Your task to perform on an android device: Search for "logitech g910" on costco.com, select the first entry, add it to the cart, then select checkout. Image 0: 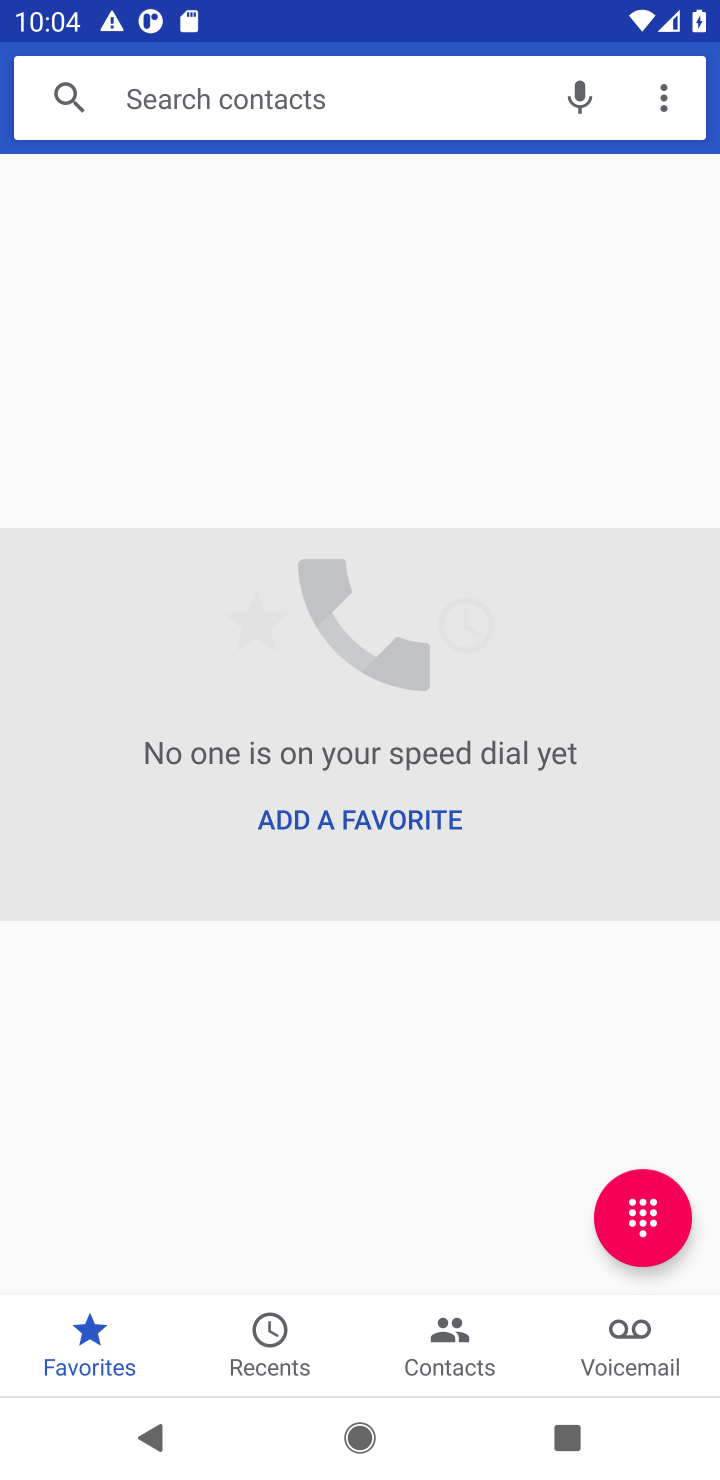
Step 0: press home button
Your task to perform on an android device: Search for "logitech g910" on costco.com, select the first entry, add it to the cart, then select checkout. Image 1: 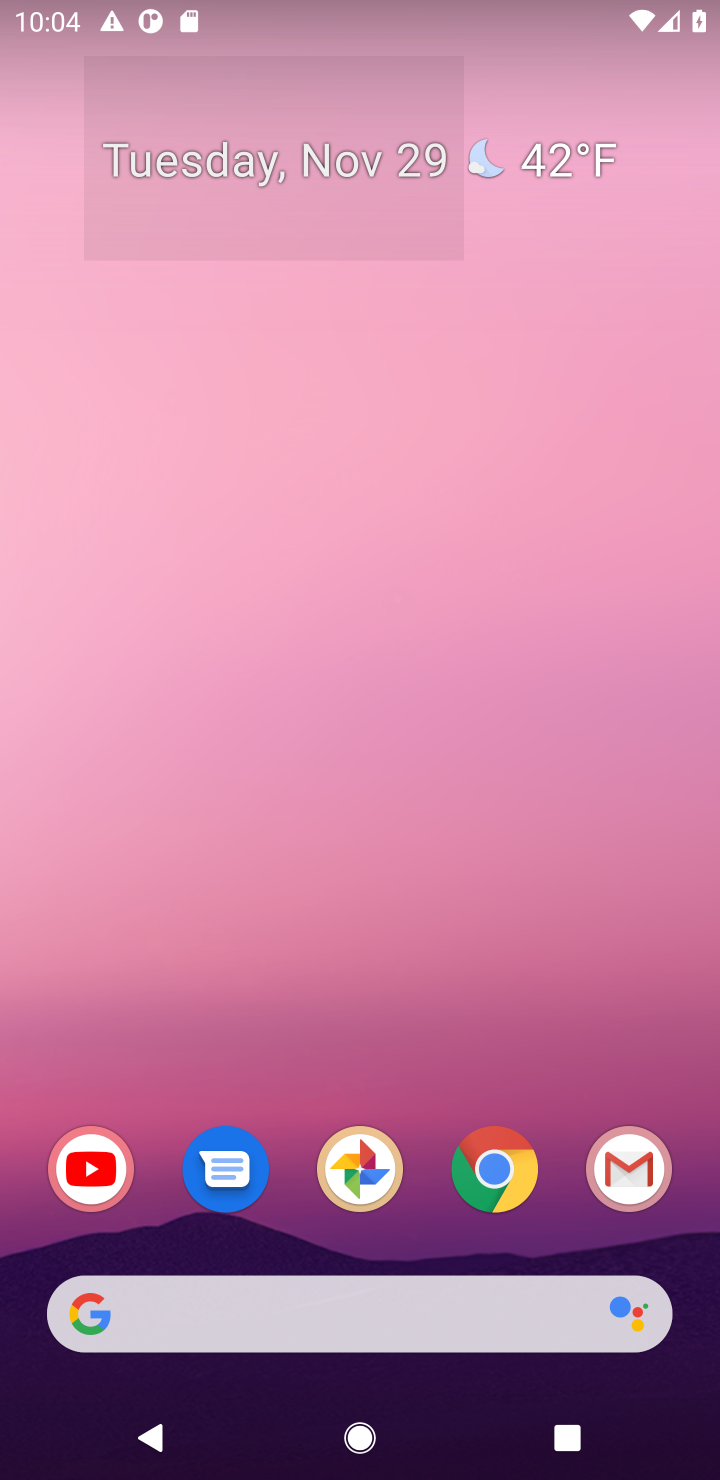
Step 1: click (282, 1323)
Your task to perform on an android device: Search for "logitech g910" on costco.com, select the first entry, add it to the cart, then select checkout. Image 2: 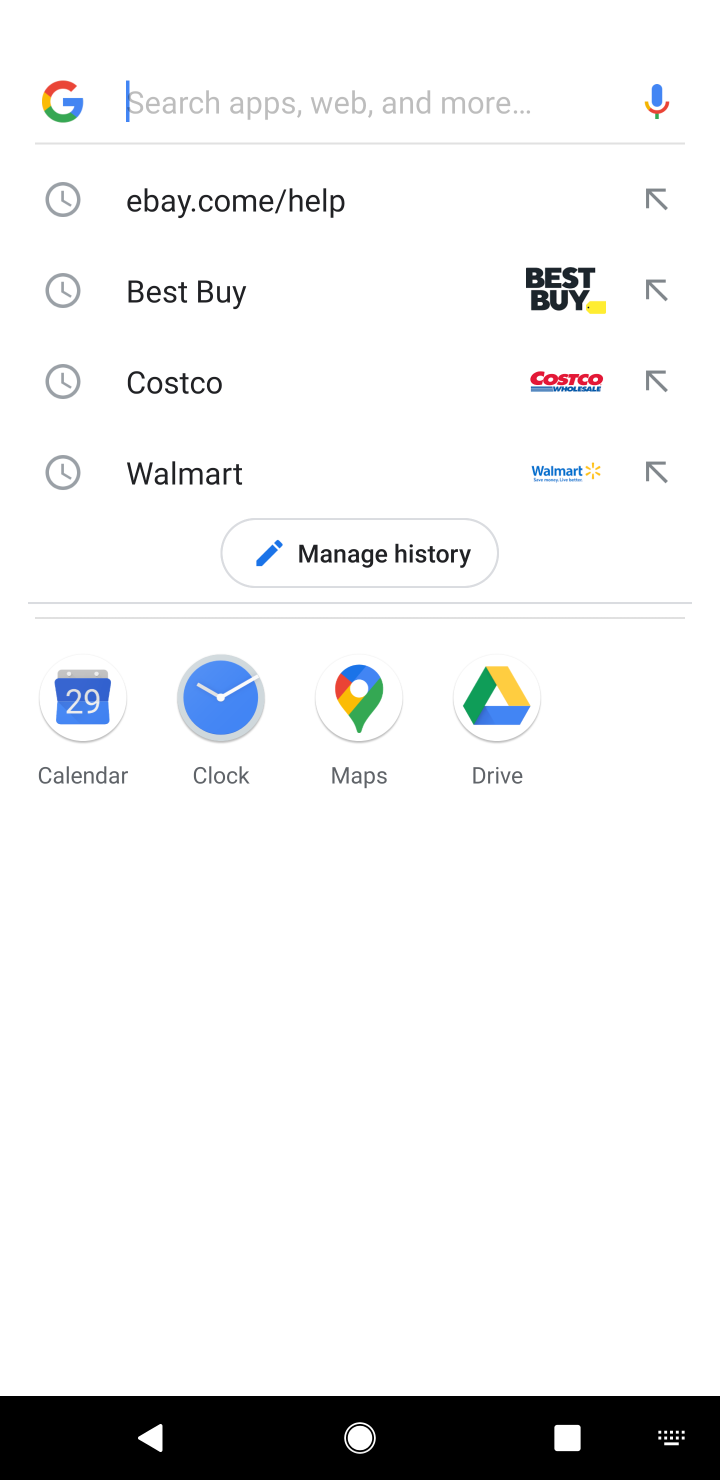
Step 2: type "costco.com"
Your task to perform on an android device: Search for "logitech g910" on costco.com, select the first entry, add it to the cart, then select checkout. Image 3: 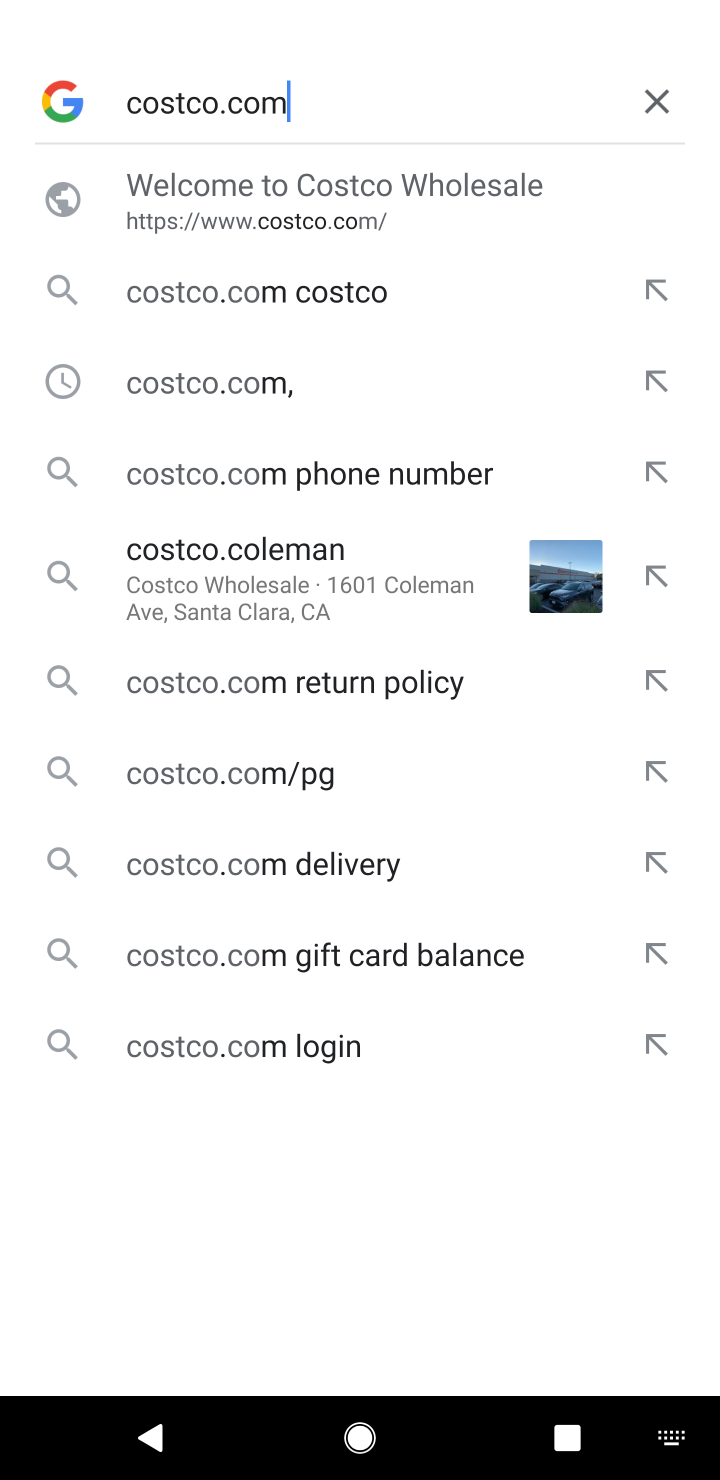
Step 3: click (284, 195)
Your task to perform on an android device: Search for "logitech g910" on costco.com, select the first entry, add it to the cart, then select checkout. Image 4: 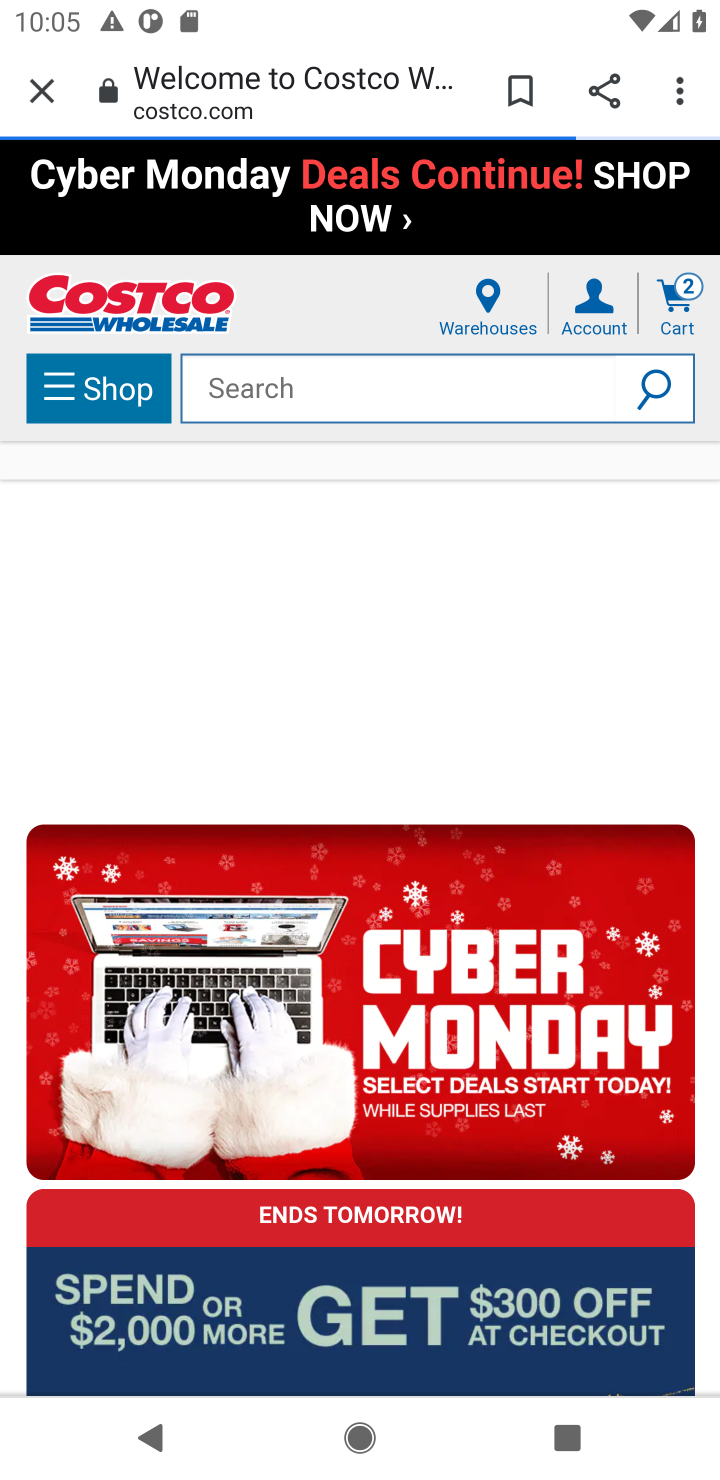
Step 4: click (272, 383)
Your task to perform on an android device: Search for "logitech g910" on costco.com, select the first entry, add it to the cart, then select checkout. Image 5: 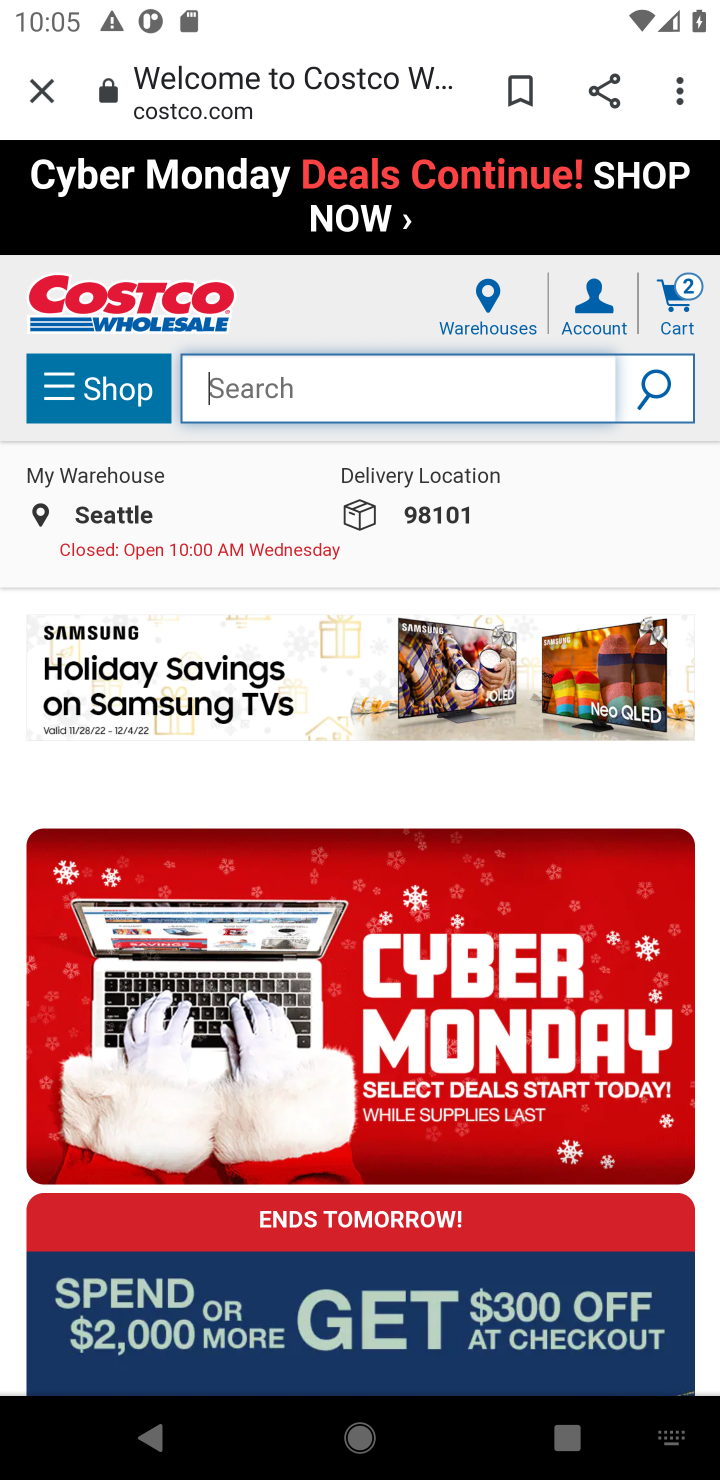
Step 5: type "logitech g910"
Your task to perform on an android device: Search for "logitech g910" on costco.com, select the first entry, add it to the cart, then select checkout. Image 6: 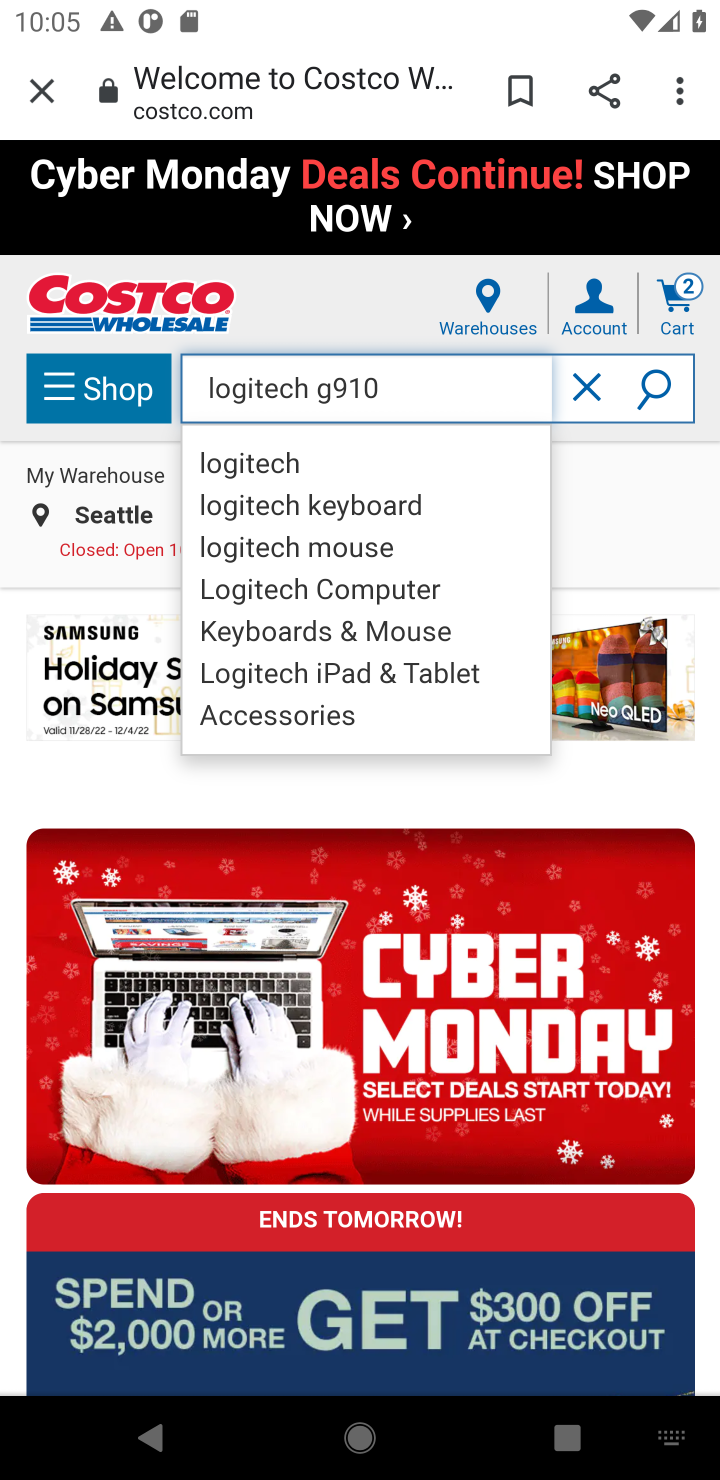
Step 6: click (637, 401)
Your task to perform on an android device: Search for "logitech g910" on costco.com, select the first entry, add it to the cart, then select checkout. Image 7: 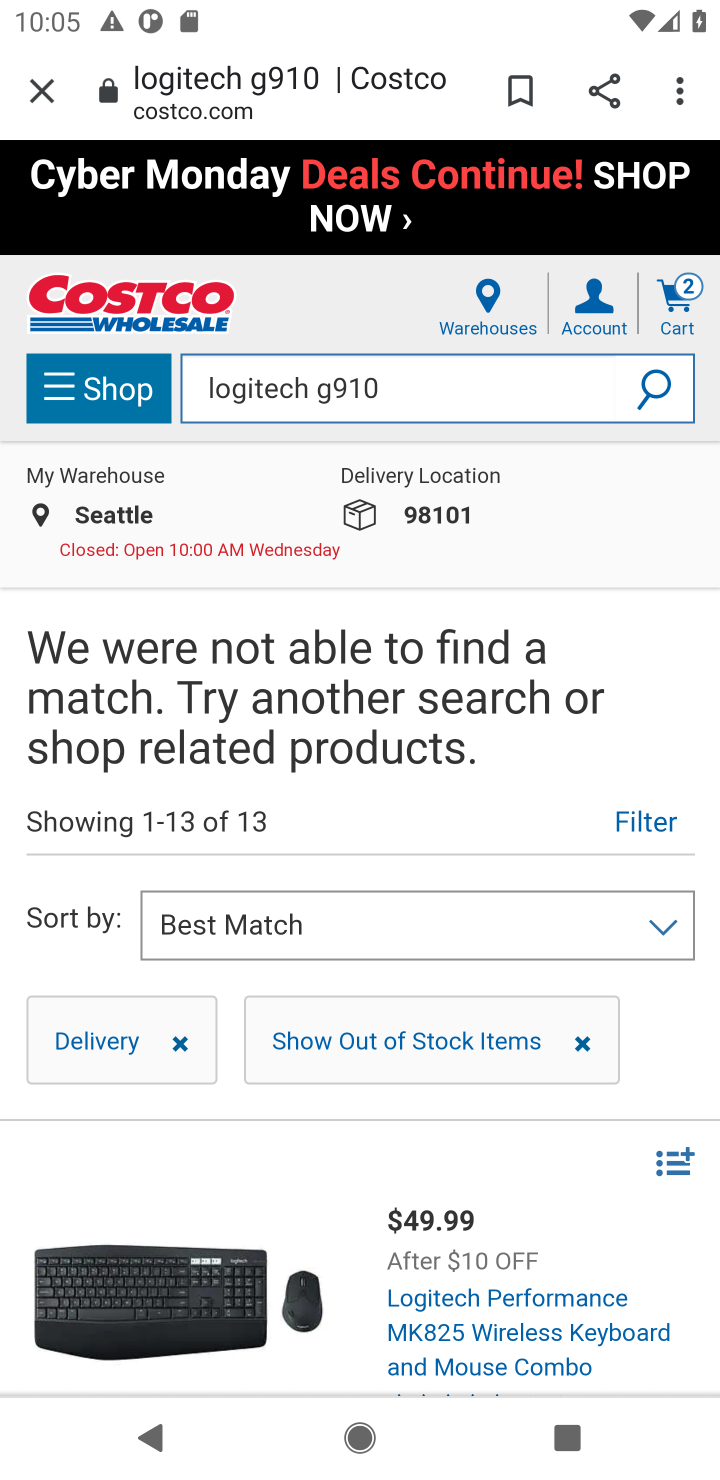
Step 7: click (432, 1267)
Your task to perform on an android device: Search for "logitech g910" on costco.com, select the first entry, add it to the cart, then select checkout. Image 8: 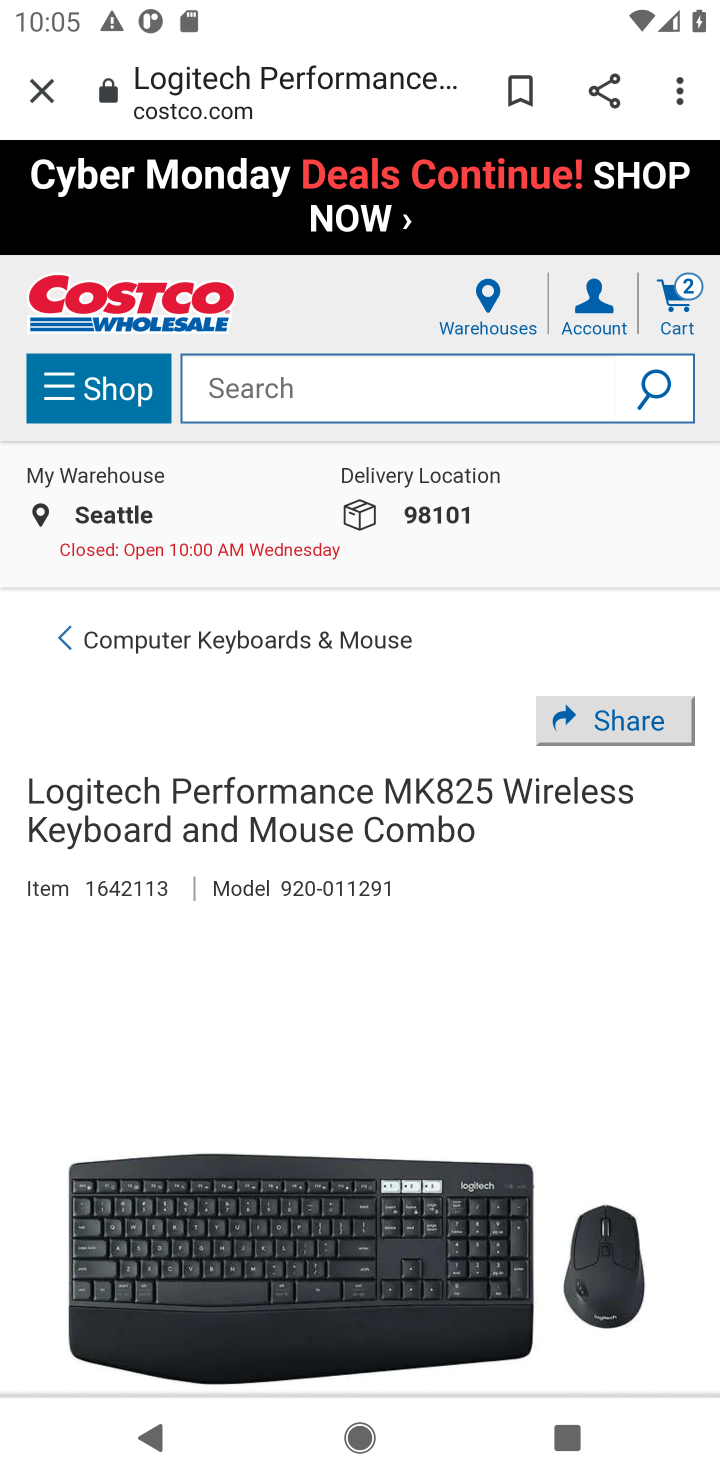
Step 8: drag from (271, 1133) to (195, 477)
Your task to perform on an android device: Search for "logitech g910" on costco.com, select the first entry, add it to the cart, then select checkout. Image 9: 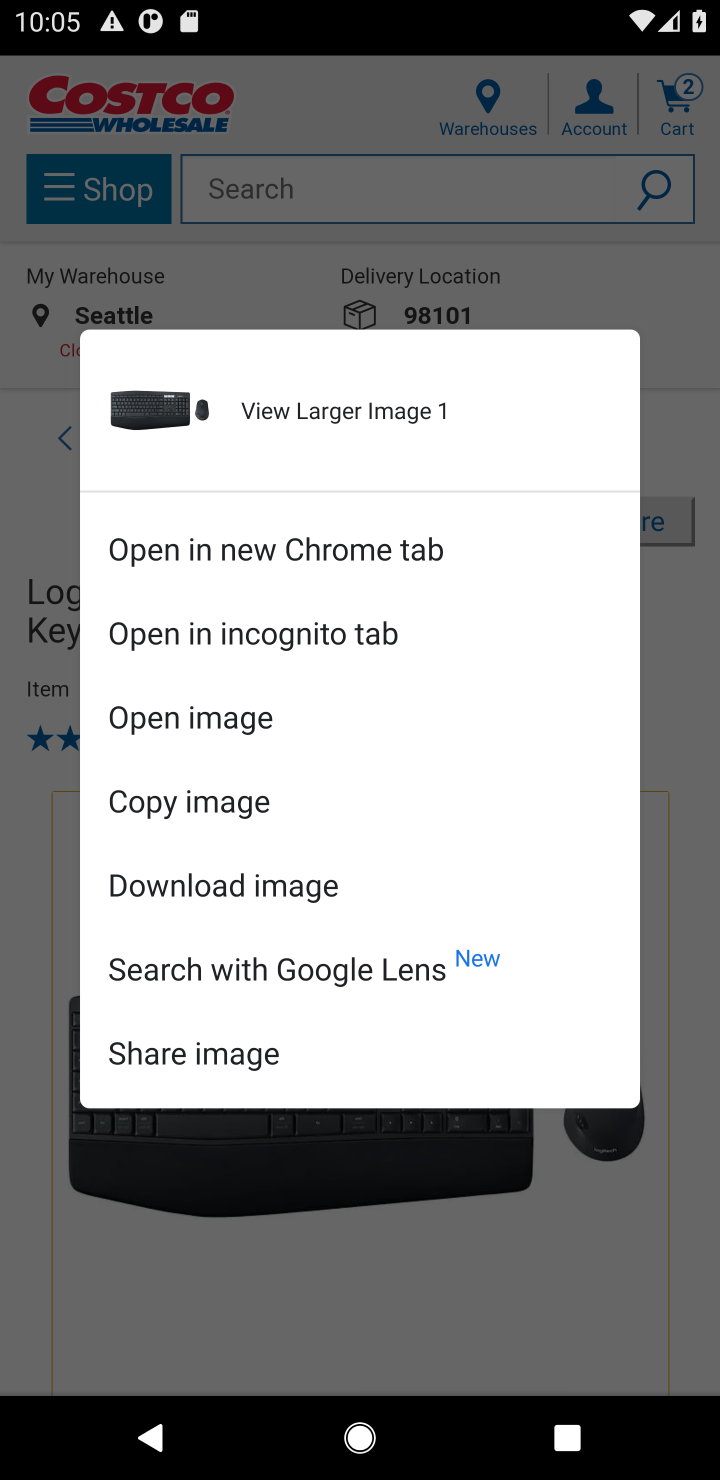
Step 9: click (105, 1260)
Your task to perform on an android device: Search for "logitech g910" on costco.com, select the first entry, add it to the cart, then select checkout. Image 10: 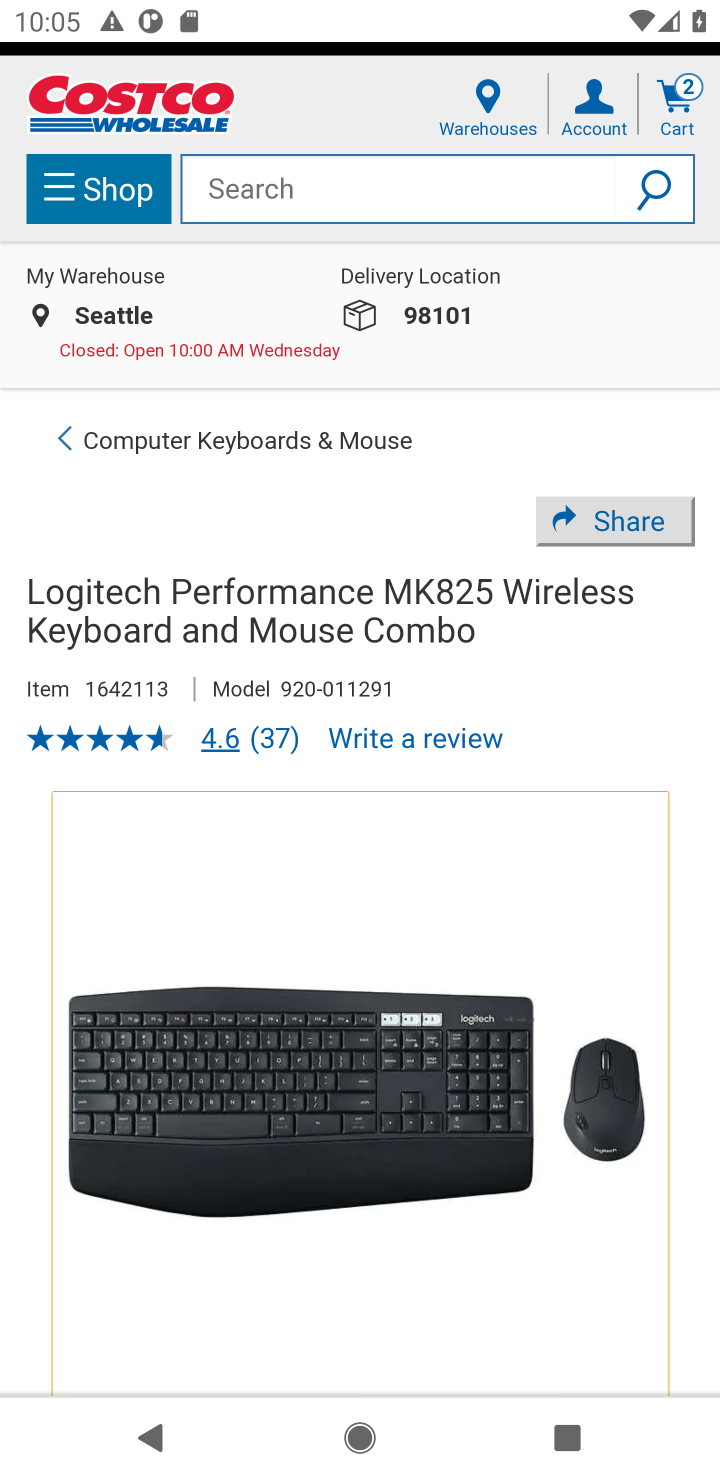
Step 10: drag from (269, 1233) to (265, 681)
Your task to perform on an android device: Search for "logitech g910" on costco.com, select the first entry, add it to the cart, then select checkout. Image 11: 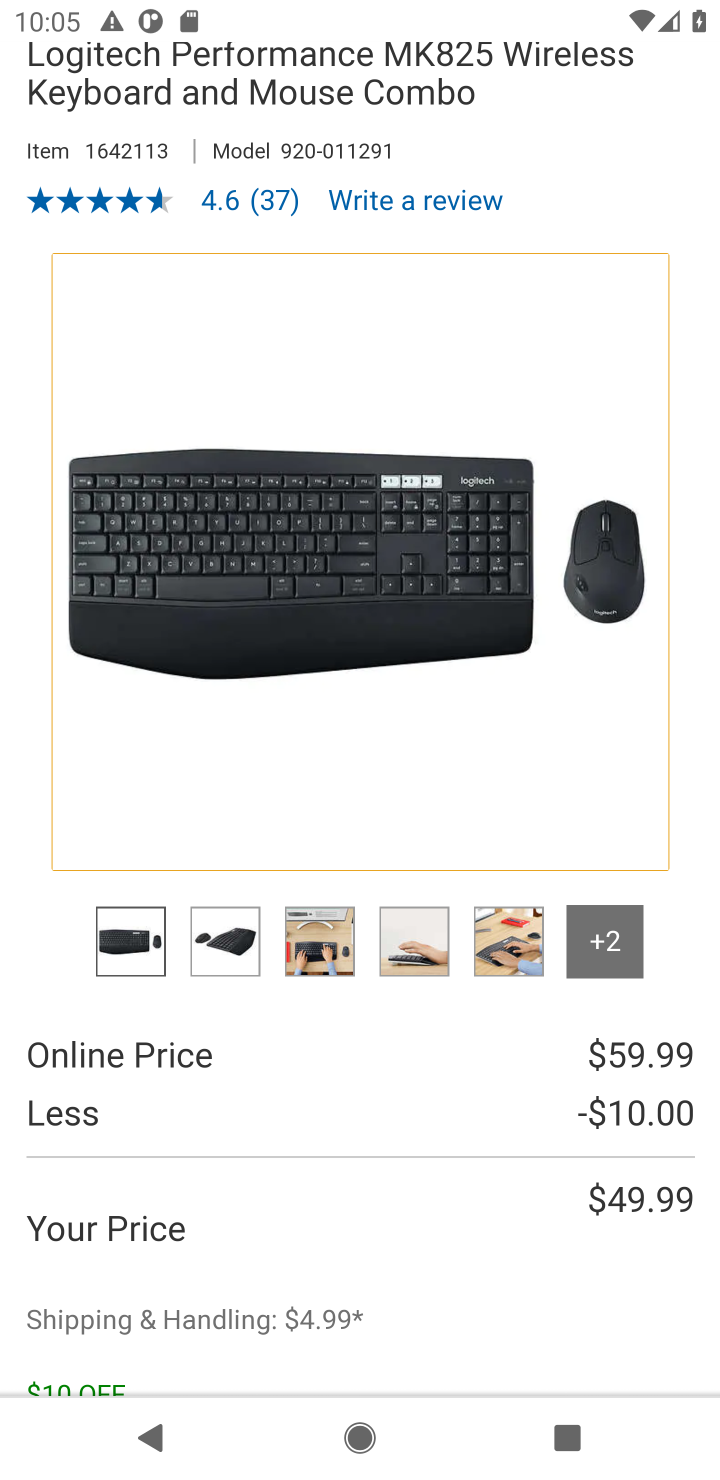
Step 11: drag from (366, 1202) to (359, 1025)
Your task to perform on an android device: Search for "logitech g910" on costco.com, select the first entry, add it to the cart, then select checkout. Image 12: 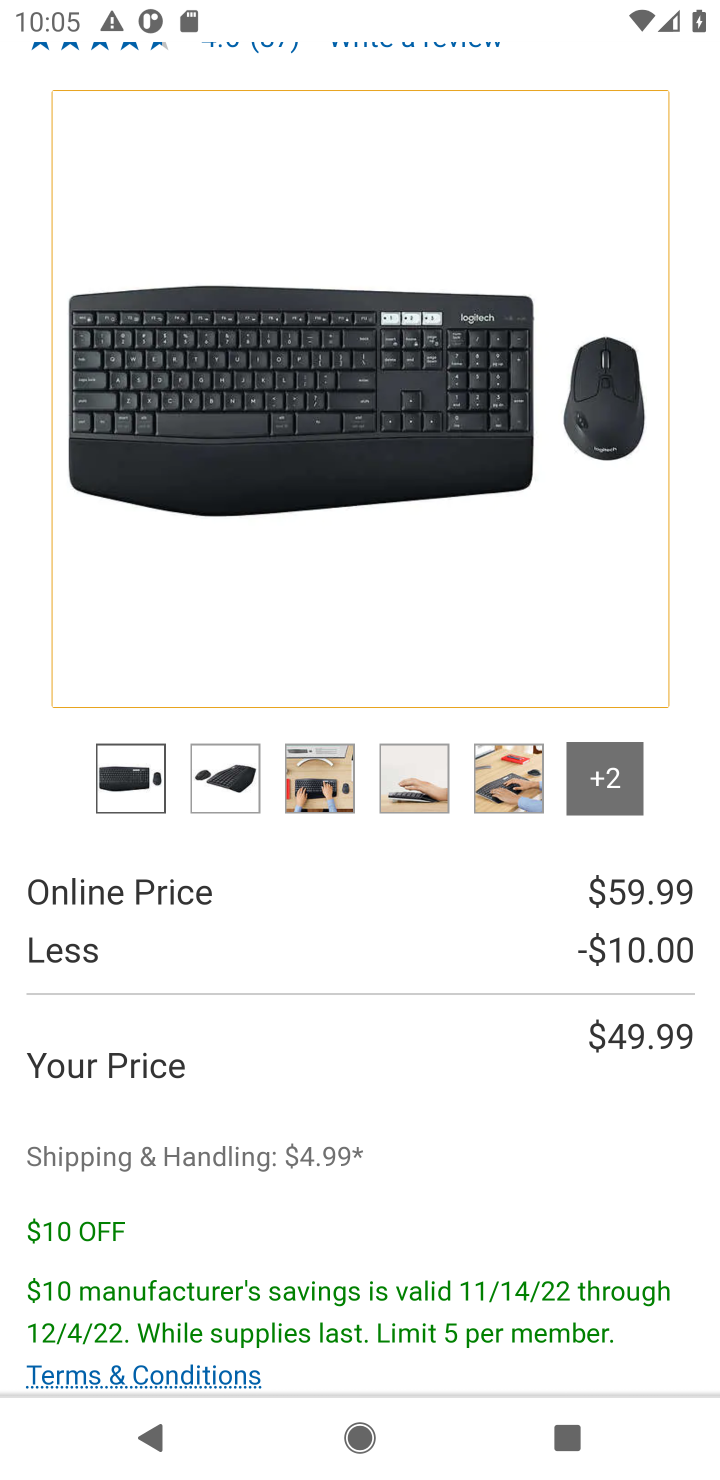
Step 12: drag from (388, 1206) to (407, 1048)
Your task to perform on an android device: Search for "logitech g910" on costco.com, select the first entry, add it to the cart, then select checkout. Image 13: 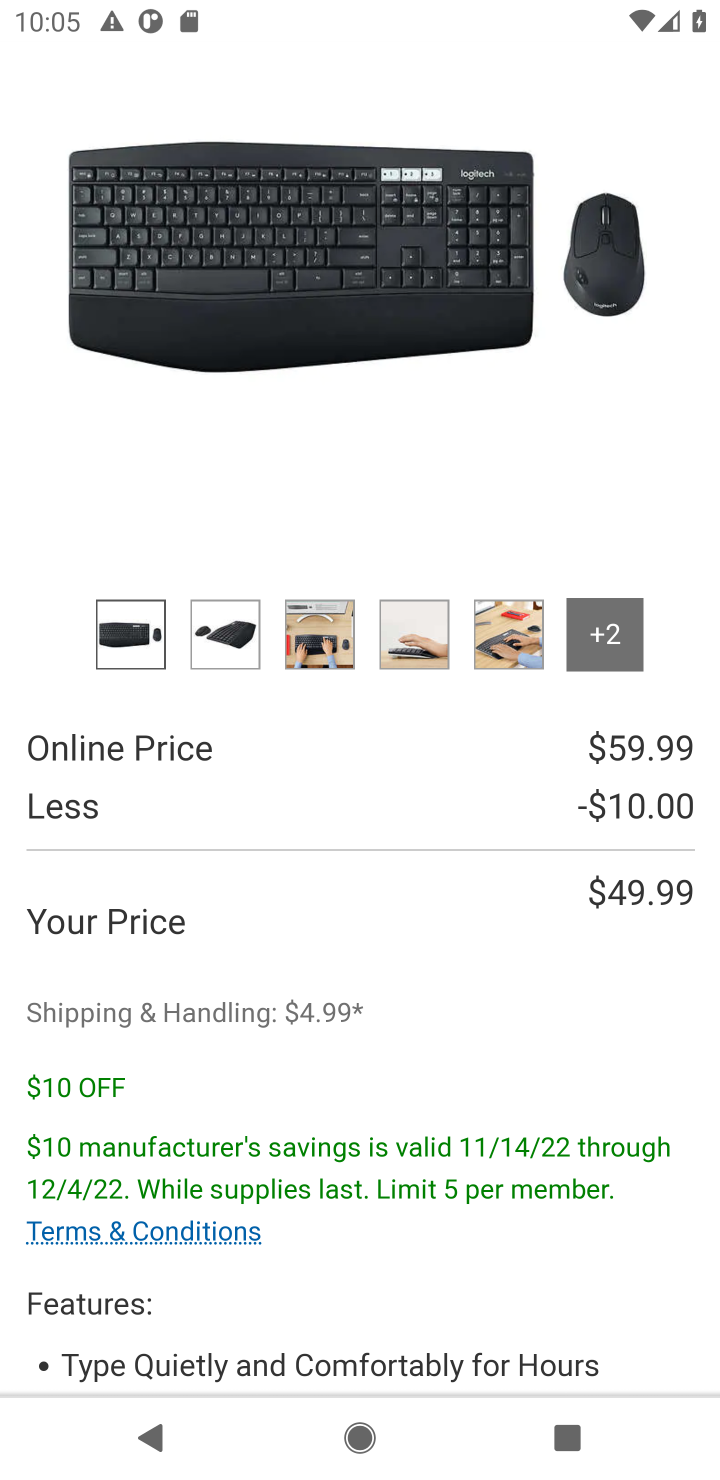
Step 13: click (478, 1246)
Your task to perform on an android device: Search for "logitech g910" on costco.com, select the first entry, add it to the cart, then select checkout. Image 14: 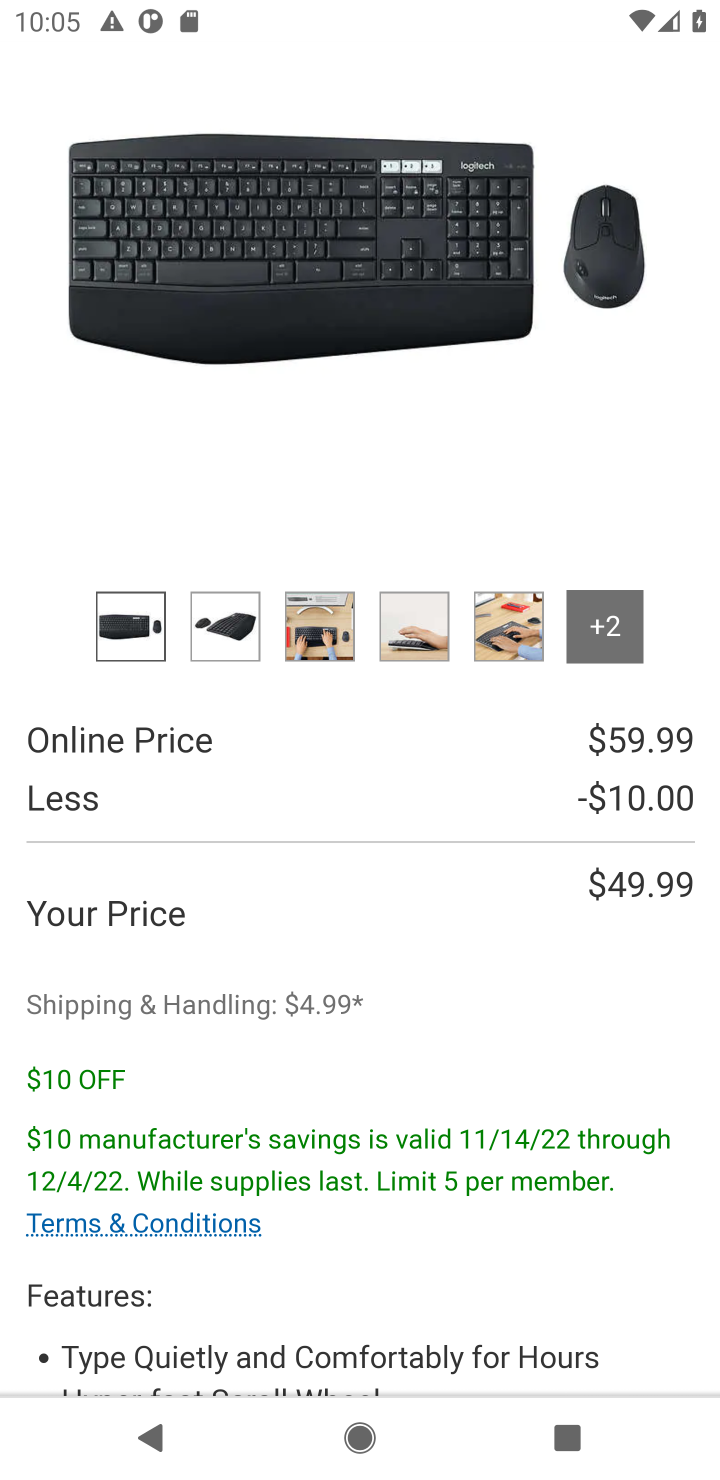
Step 14: drag from (536, 1257) to (544, 1065)
Your task to perform on an android device: Search for "logitech g910" on costco.com, select the first entry, add it to the cart, then select checkout. Image 15: 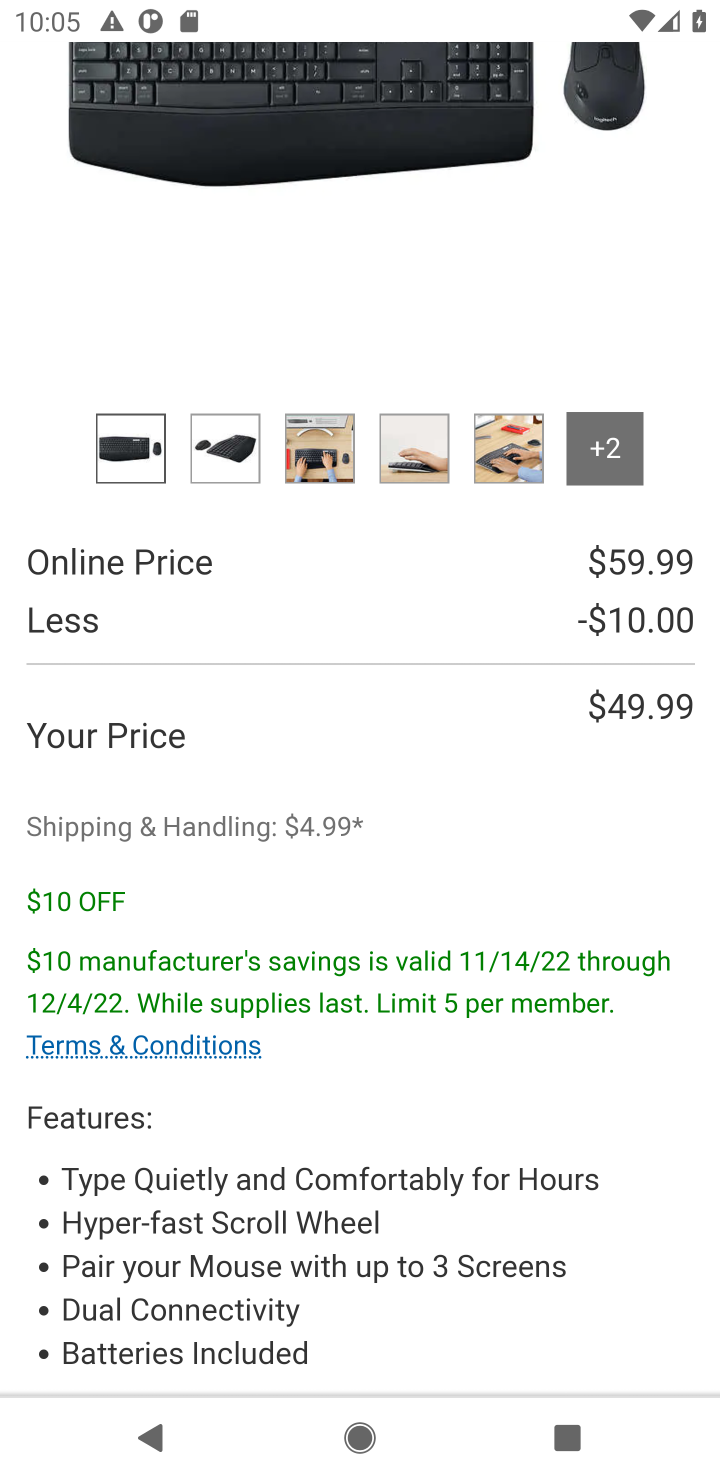
Step 15: drag from (546, 1358) to (546, 927)
Your task to perform on an android device: Search for "logitech g910" on costco.com, select the first entry, add it to the cart, then select checkout. Image 16: 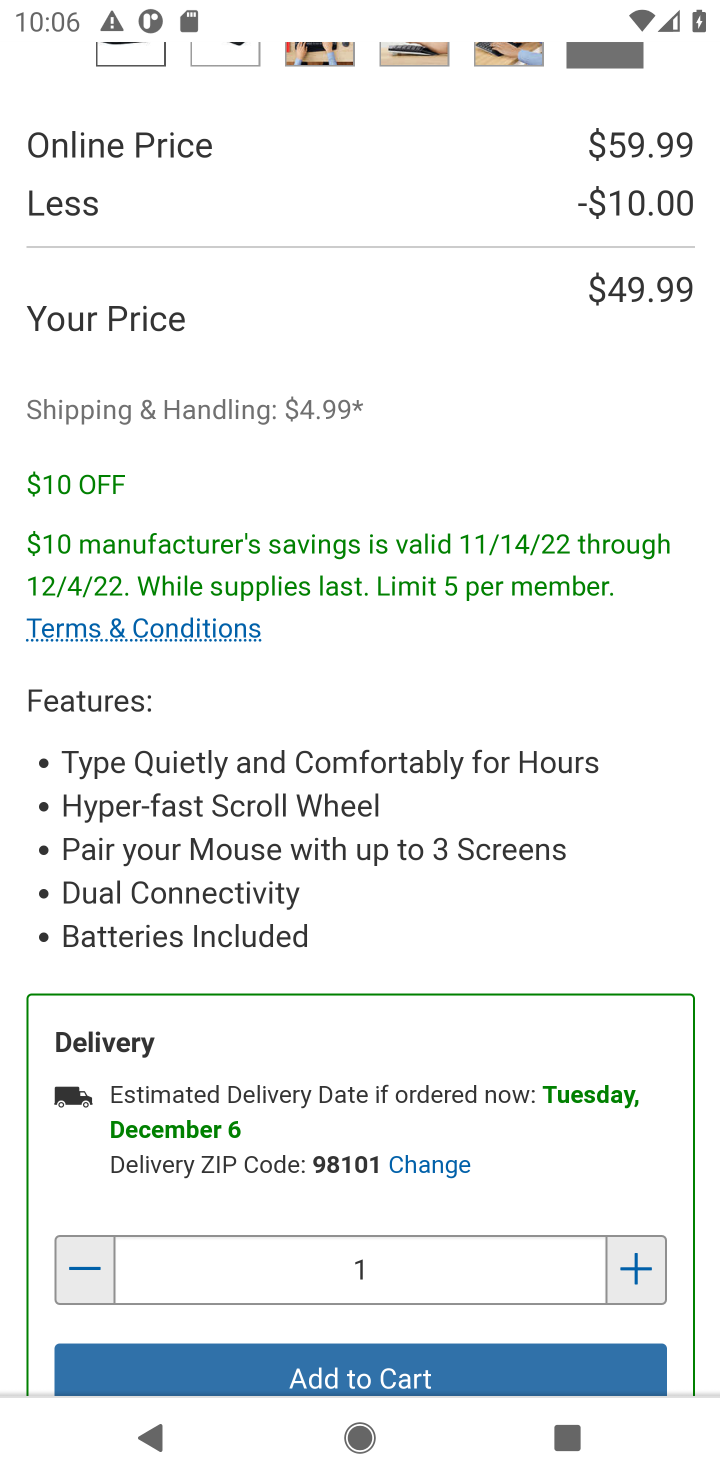
Step 16: click (543, 1353)
Your task to perform on an android device: Search for "logitech g910" on costco.com, select the first entry, add it to the cart, then select checkout. Image 17: 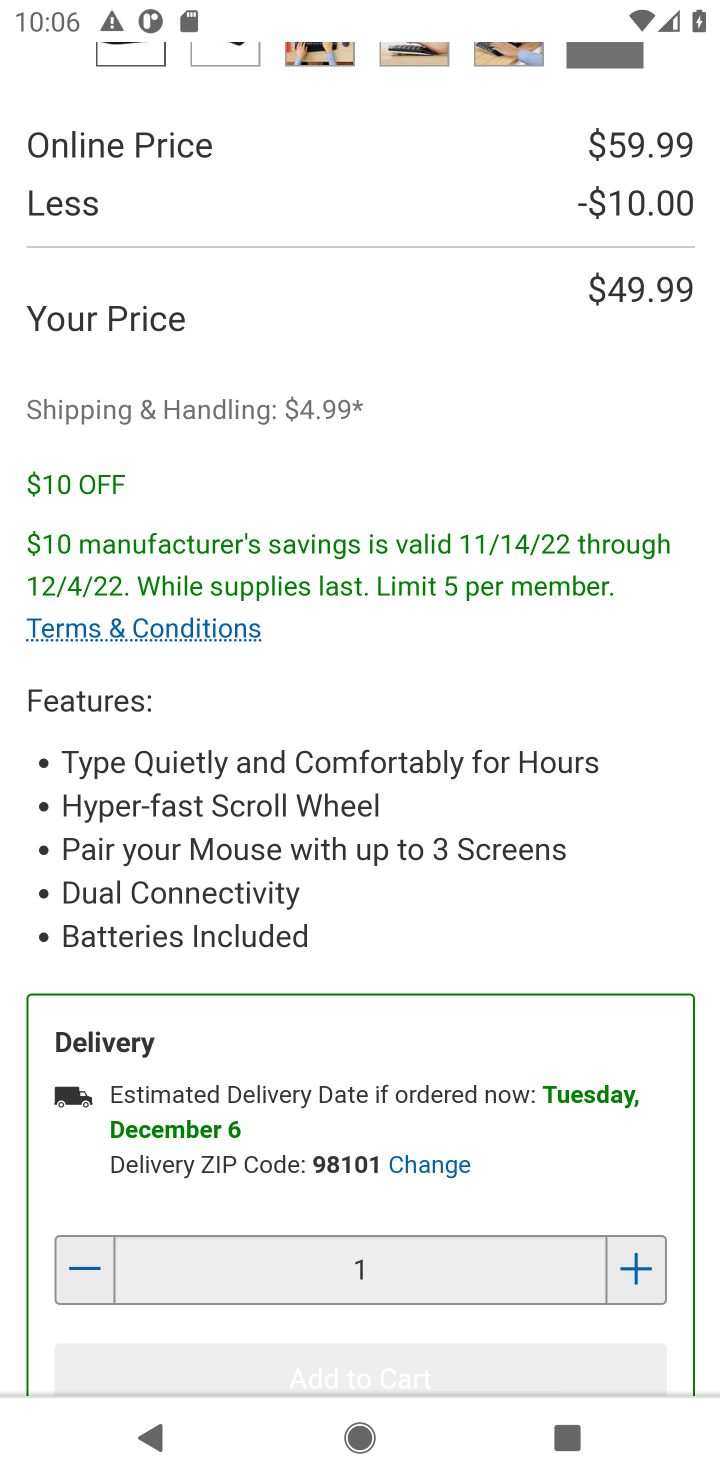
Step 17: task complete